Your task to perform on an android device: open a bookmark in the chrome app Image 0: 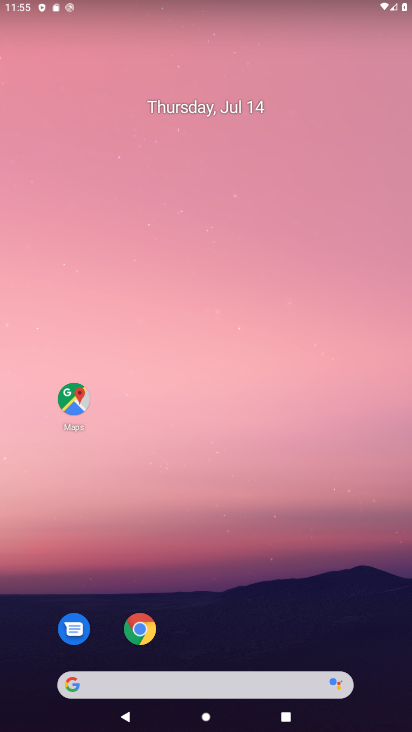
Step 0: drag from (246, 423) to (225, 24)
Your task to perform on an android device: open a bookmark in the chrome app Image 1: 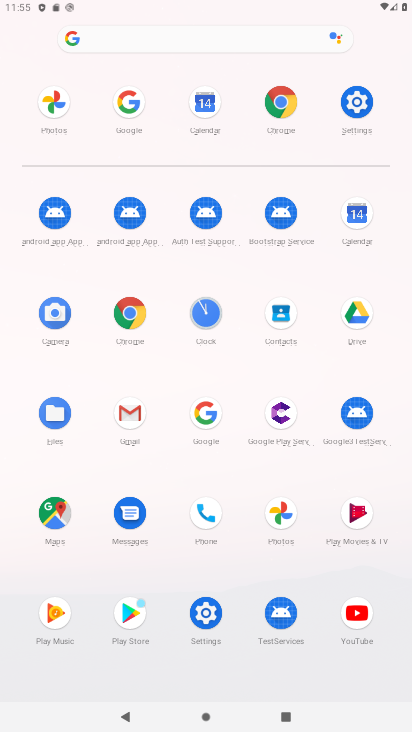
Step 1: click (287, 100)
Your task to perform on an android device: open a bookmark in the chrome app Image 2: 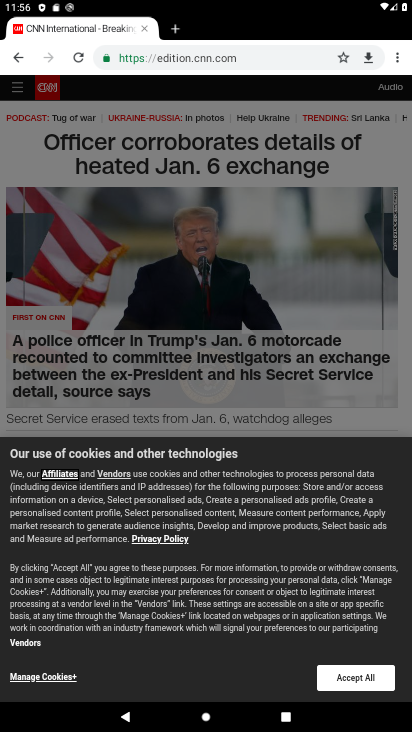
Step 2: drag from (405, 52) to (307, 168)
Your task to perform on an android device: open a bookmark in the chrome app Image 3: 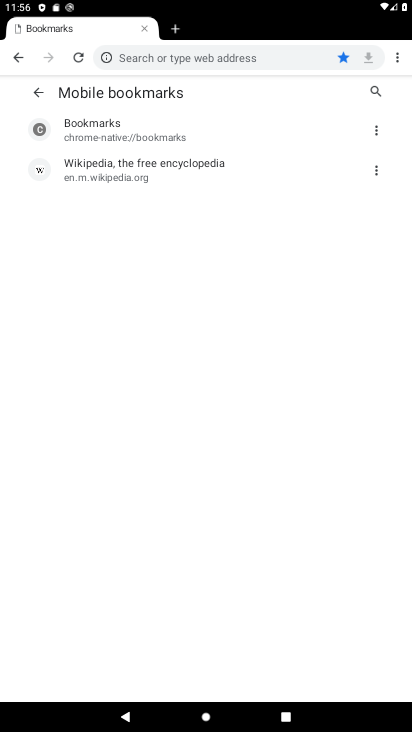
Step 3: click (118, 185)
Your task to perform on an android device: open a bookmark in the chrome app Image 4: 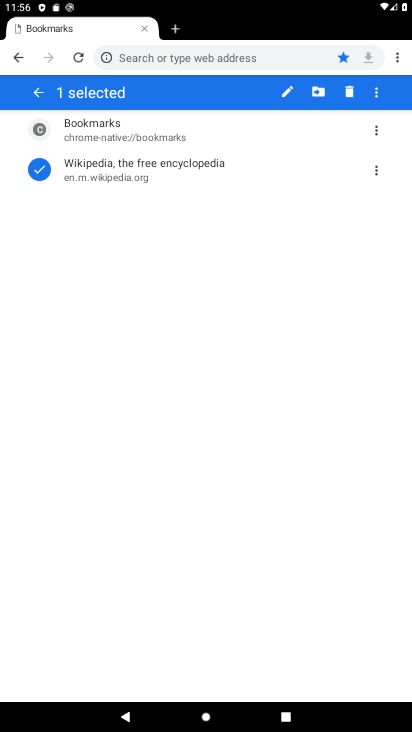
Step 4: click (172, 177)
Your task to perform on an android device: open a bookmark in the chrome app Image 5: 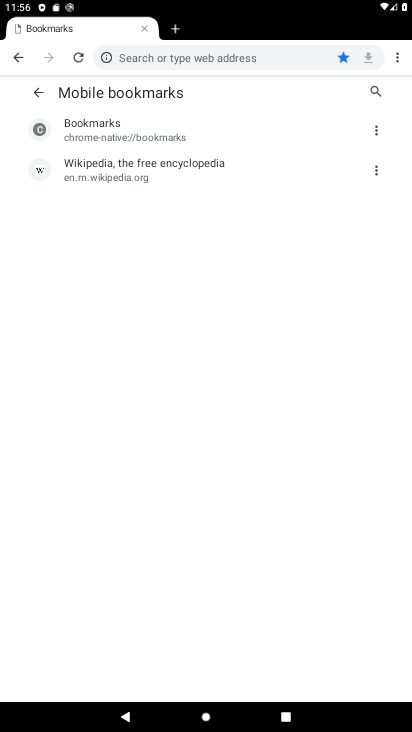
Step 5: click (172, 177)
Your task to perform on an android device: open a bookmark in the chrome app Image 6: 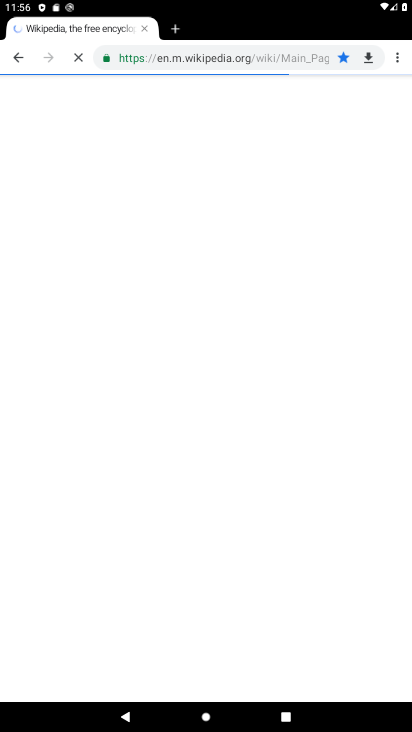
Step 6: click (126, 175)
Your task to perform on an android device: open a bookmark in the chrome app Image 7: 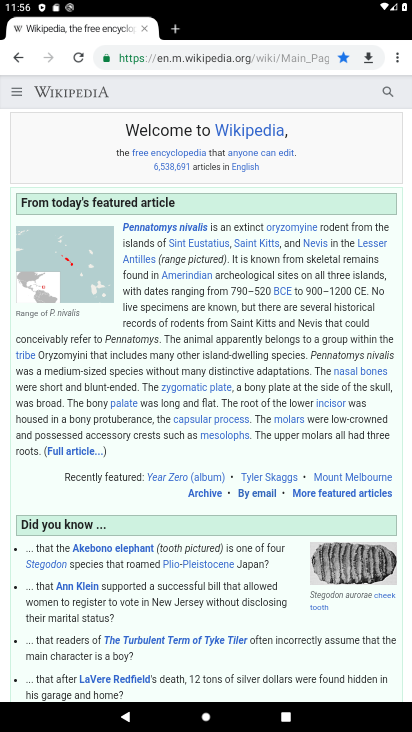
Step 7: task complete